Your task to perform on an android device: Open the calendar and show me this week's events? Image 0: 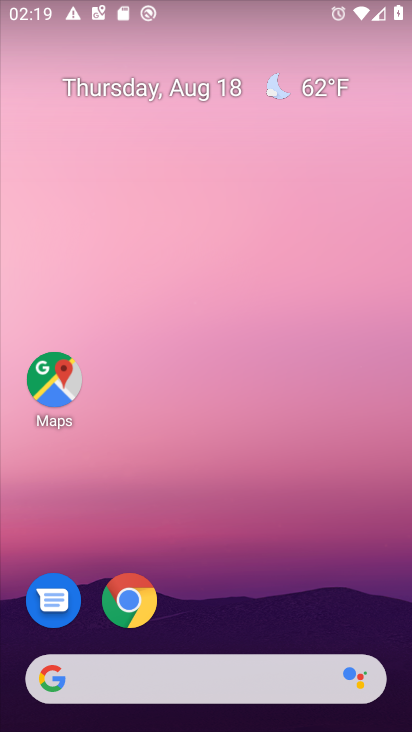
Step 0: press home button
Your task to perform on an android device: Open the calendar and show me this week's events? Image 1: 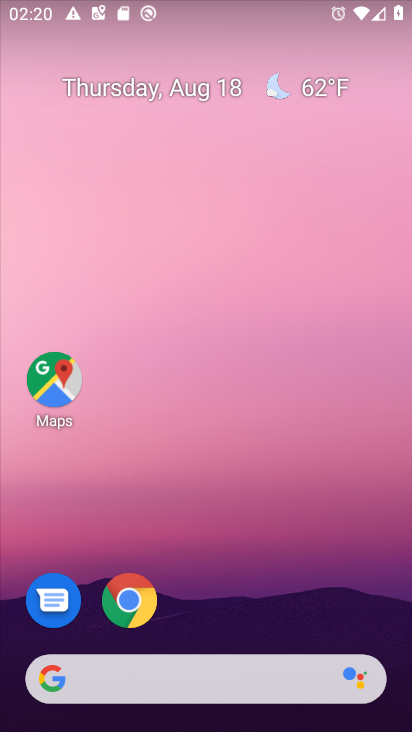
Step 1: drag from (226, 606) to (279, 81)
Your task to perform on an android device: Open the calendar and show me this week's events? Image 2: 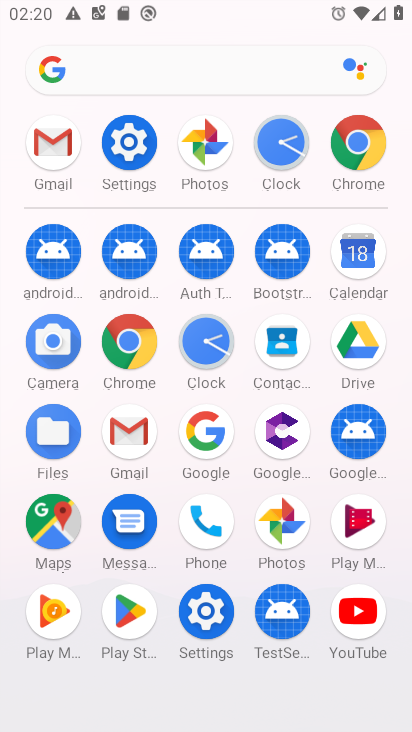
Step 2: click (359, 248)
Your task to perform on an android device: Open the calendar and show me this week's events? Image 3: 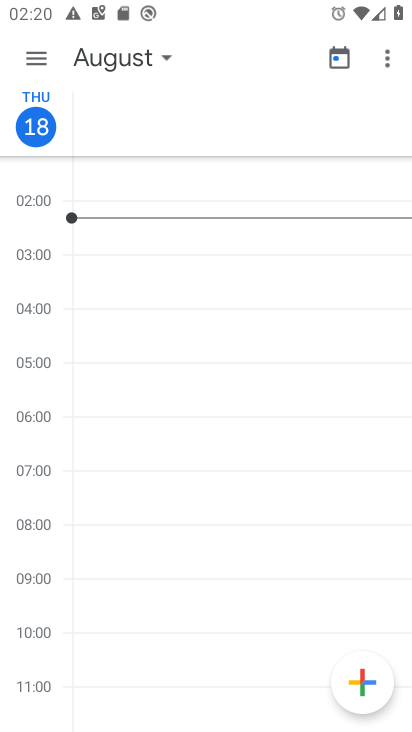
Step 3: click (41, 51)
Your task to perform on an android device: Open the calendar and show me this week's events? Image 4: 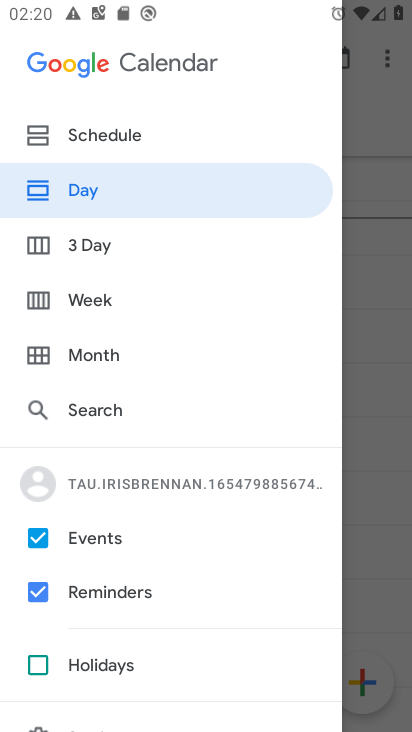
Step 4: click (96, 298)
Your task to perform on an android device: Open the calendar and show me this week's events? Image 5: 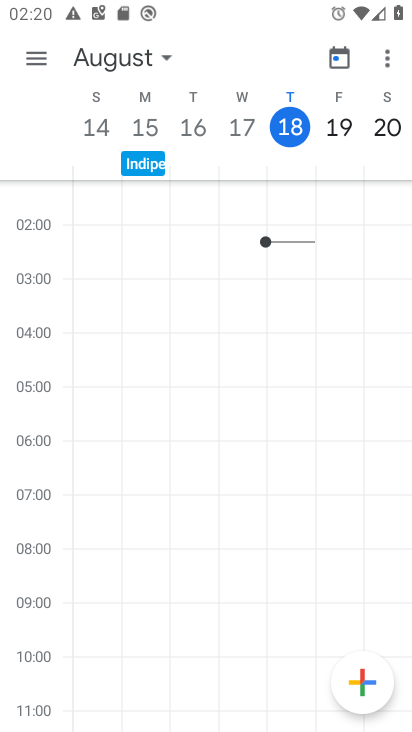
Step 5: click (38, 59)
Your task to perform on an android device: Open the calendar and show me this week's events? Image 6: 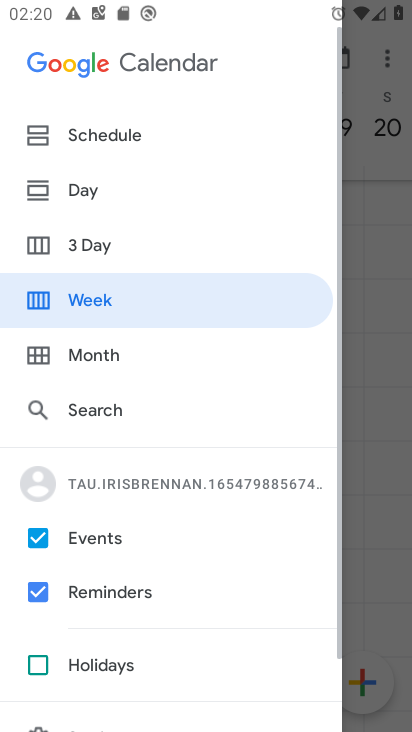
Step 6: click (110, 136)
Your task to perform on an android device: Open the calendar and show me this week's events? Image 7: 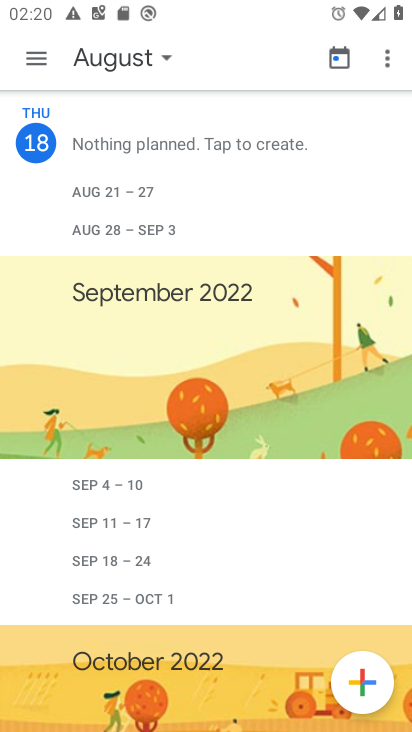
Step 7: task complete